Your task to perform on an android device: see sites visited before in the chrome app Image 0: 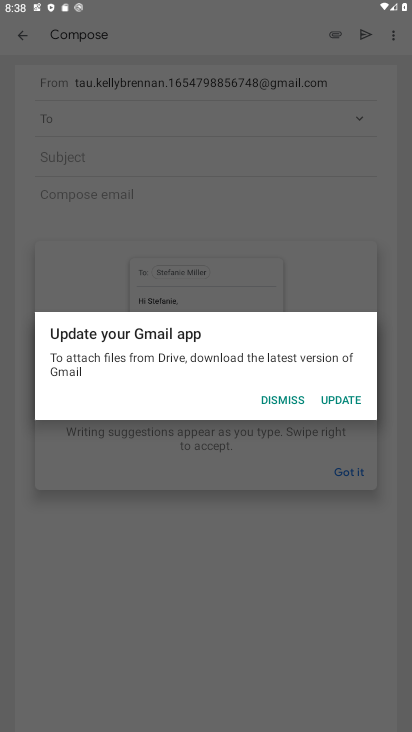
Step 0: press home button
Your task to perform on an android device: see sites visited before in the chrome app Image 1: 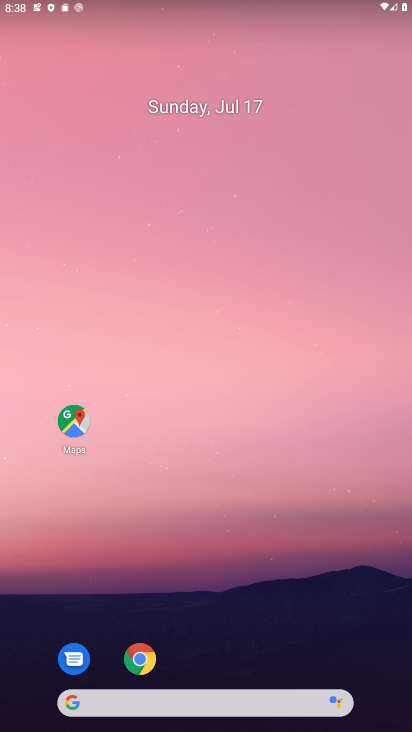
Step 1: click (136, 656)
Your task to perform on an android device: see sites visited before in the chrome app Image 2: 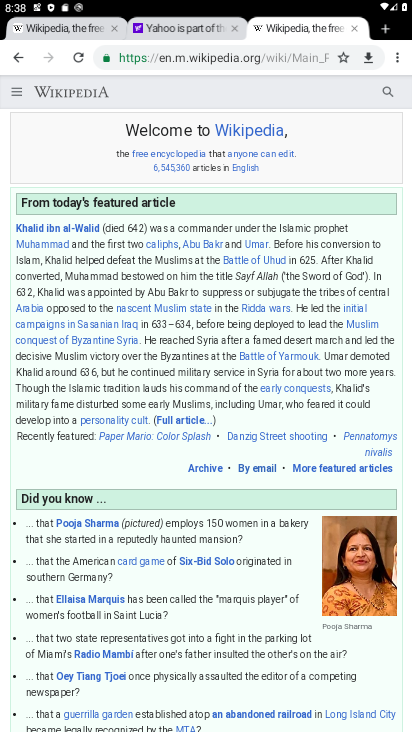
Step 2: click (392, 53)
Your task to perform on an android device: see sites visited before in the chrome app Image 3: 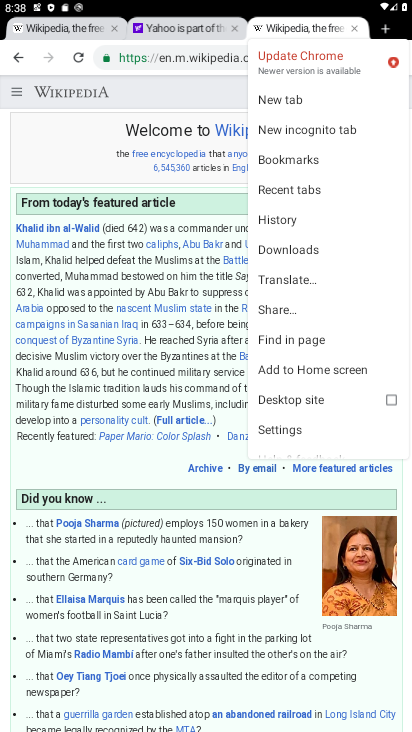
Step 3: click (308, 196)
Your task to perform on an android device: see sites visited before in the chrome app Image 4: 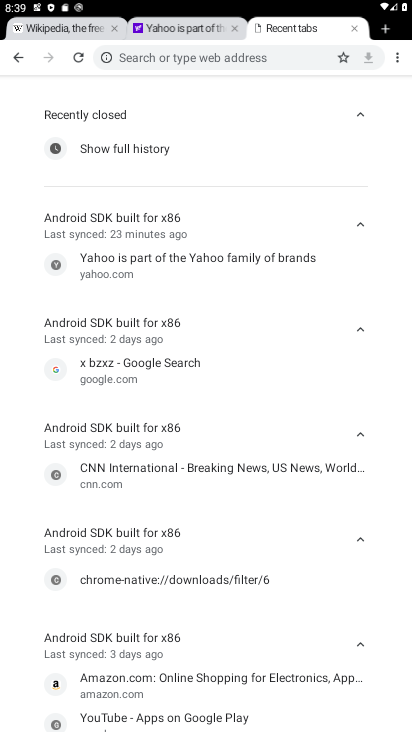
Step 4: task complete